Your task to perform on an android device: find snoozed emails in the gmail app Image 0: 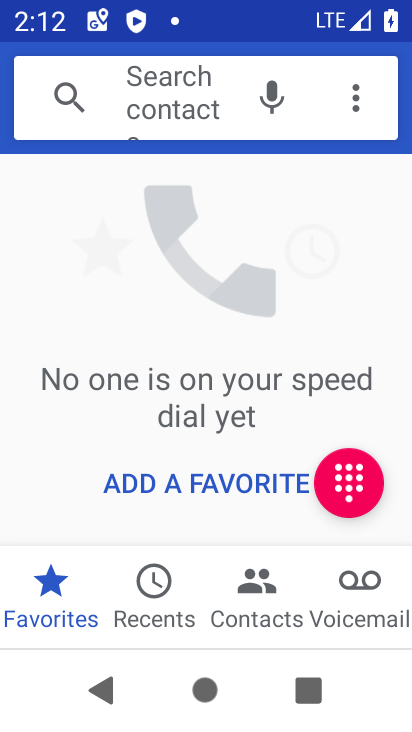
Step 0: press home button
Your task to perform on an android device: find snoozed emails in the gmail app Image 1: 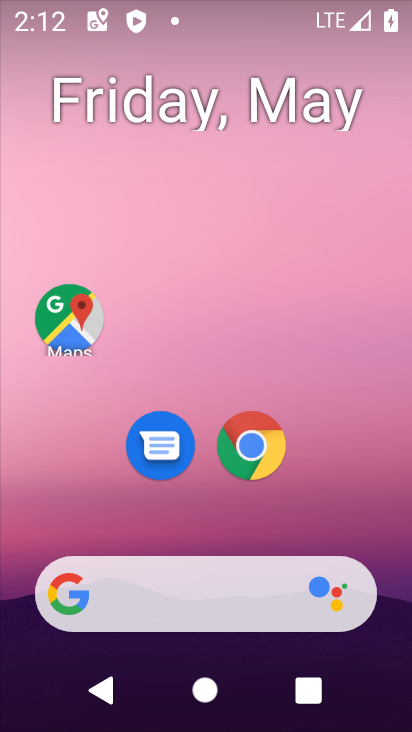
Step 1: drag from (187, 534) to (130, 25)
Your task to perform on an android device: find snoozed emails in the gmail app Image 2: 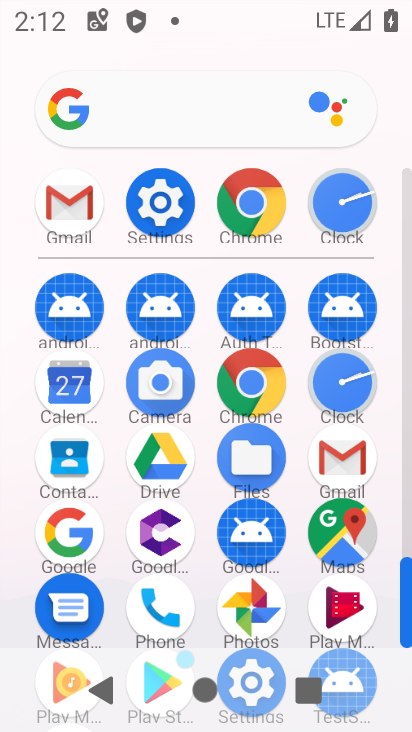
Step 2: click (66, 189)
Your task to perform on an android device: find snoozed emails in the gmail app Image 3: 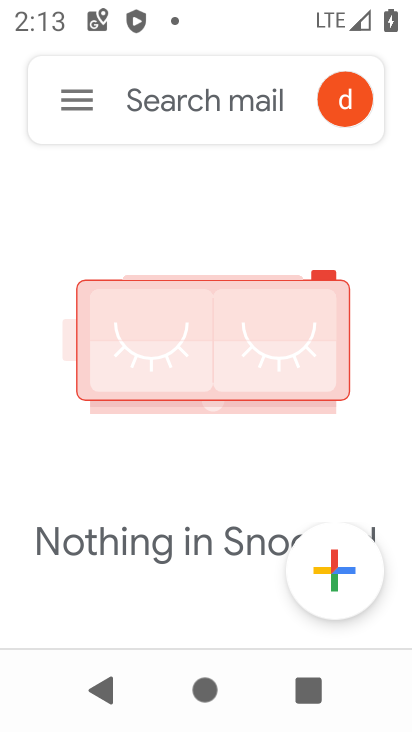
Step 3: click (77, 91)
Your task to perform on an android device: find snoozed emails in the gmail app Image 4: 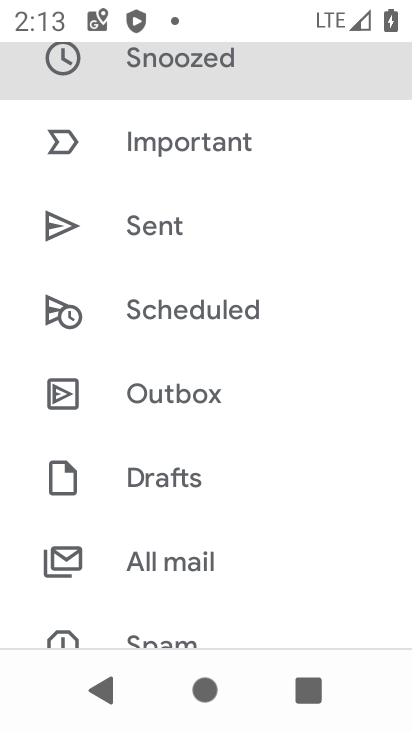
Step 4: click (105, 61)
Your task to perform on an android device: find snoozed emails in the gmail app Image 5: 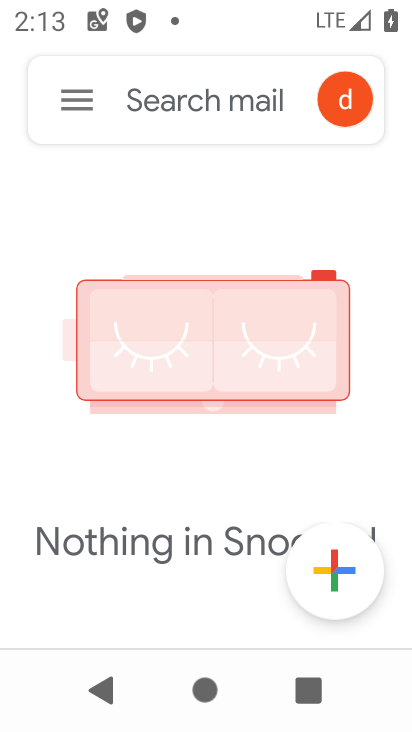
Step 5: task complete